Your task to perform on an android device: Open calendar and show me the second week of next month Image 0: 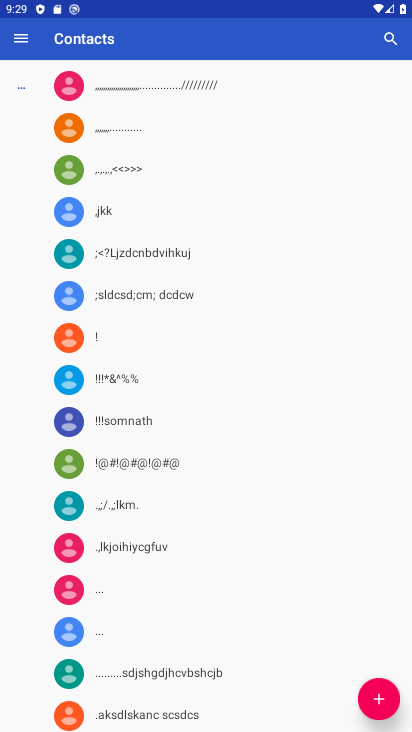
Step 0: press home button
Your task to perform on an android device: Open calendar and show me the second week of next month Image 1: 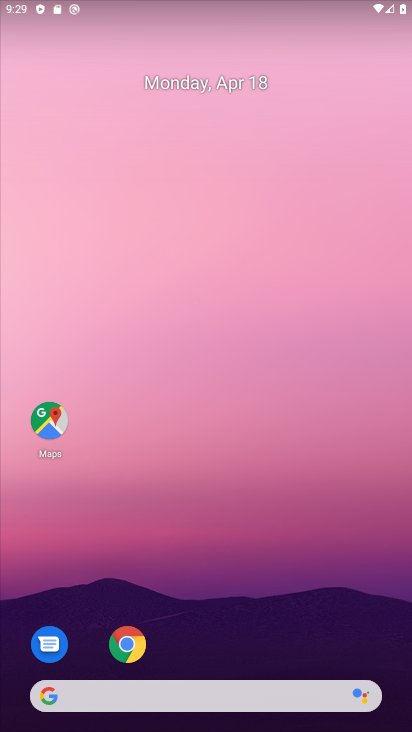
Step 1: drag from (221, 638) to (283, 109)
Your task to perform on an android device: Open calendar and show me the second week of next month Image 2: 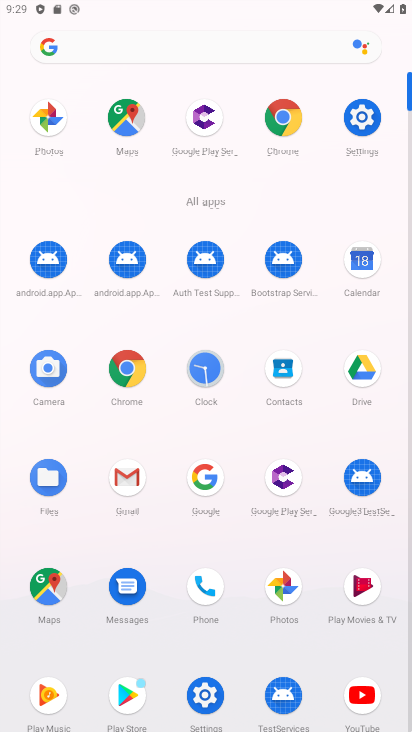
Step 2: click (358, 268)
Your task to perform on an android device: Open calendar and show me the second week of next month Image 3: 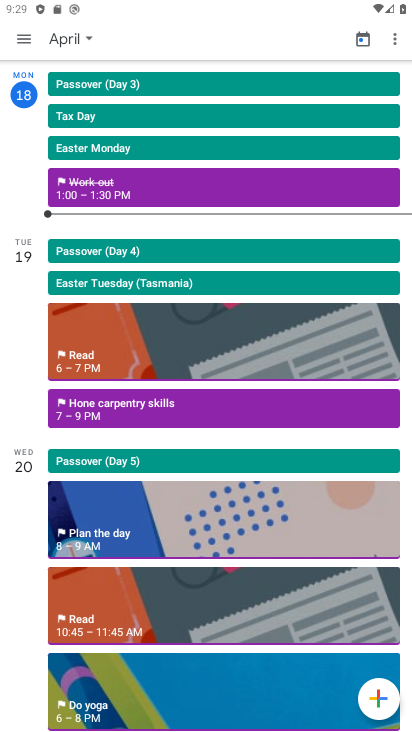
Step 3: click (21, 36)
Your task to perform on an android device: Open calendar and show me the second week of next month Image 4: 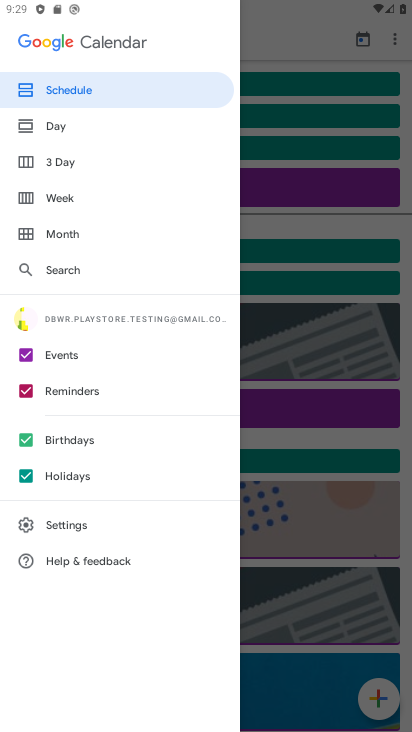
Step 4: click (64, 191)
Your task to perform on an android device: Open calendar and show me the second week of next month Image 5: 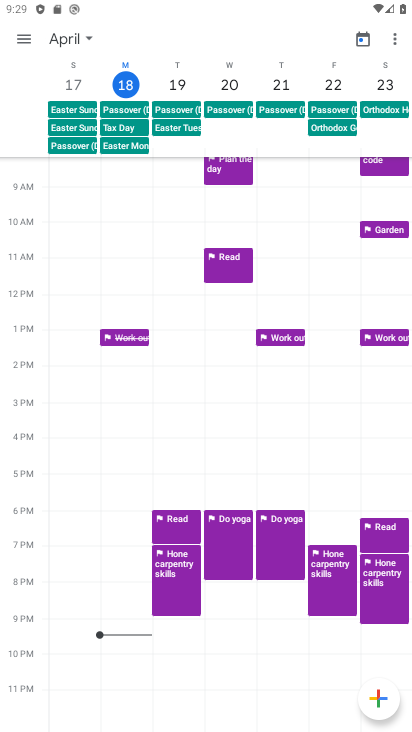
Step 5: task complete